Your task to perform on an android device: open app "eBay: The shopping marketplace" Image 0: 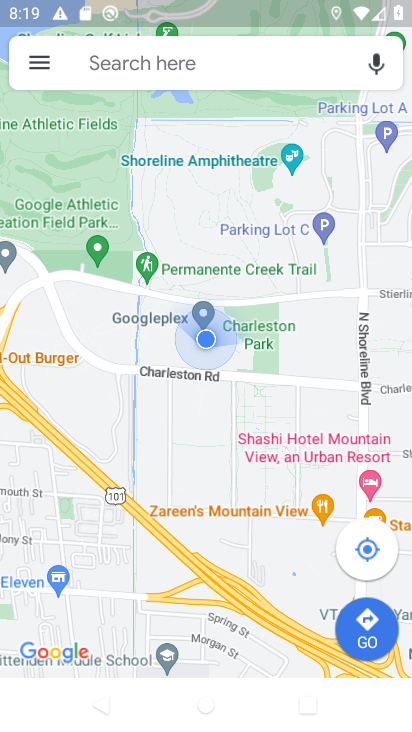
Step 0: press home button
Your task to perform on an android device: open app "eBay: The shopping marketplace" Image 1: 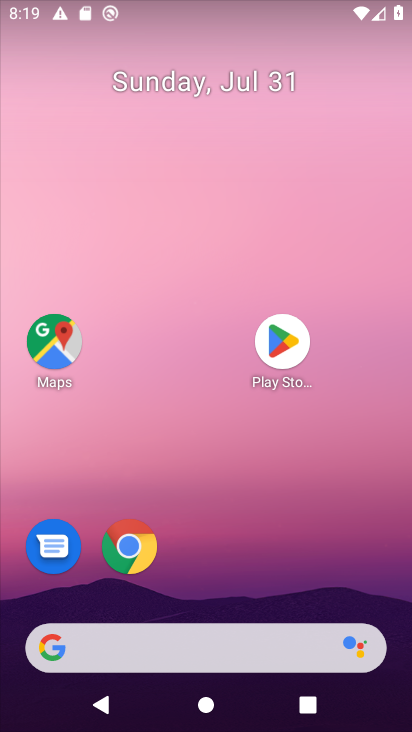
Step 1: click (279, 337)
Your task to perform on an android device: open app "eBay: The shopping marketplace" Image 2: 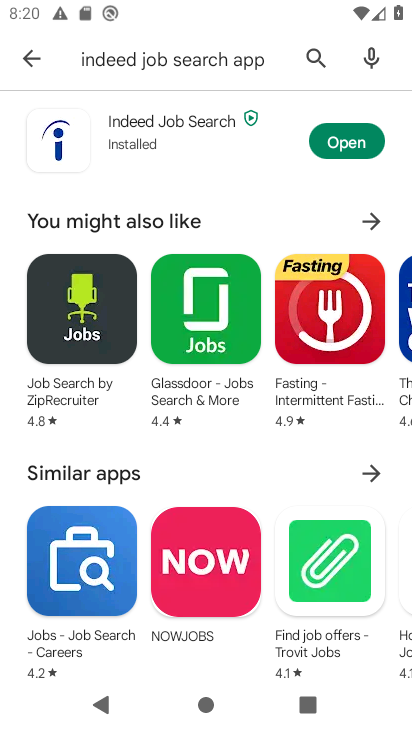
Step 2: click (313, 54)
Your task to perform on an android device: open app "eBay: The shopping marketplace" Image 3: 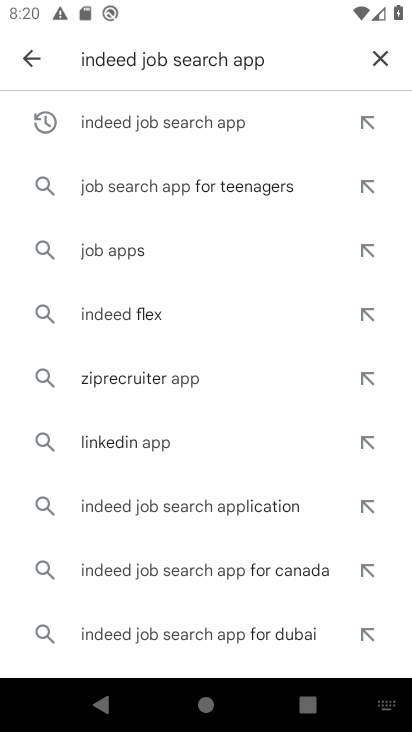
Step 3: click (382, 58)
Your task to perform on an android device: open app "eBay: The shopping marketplace" Image 4: 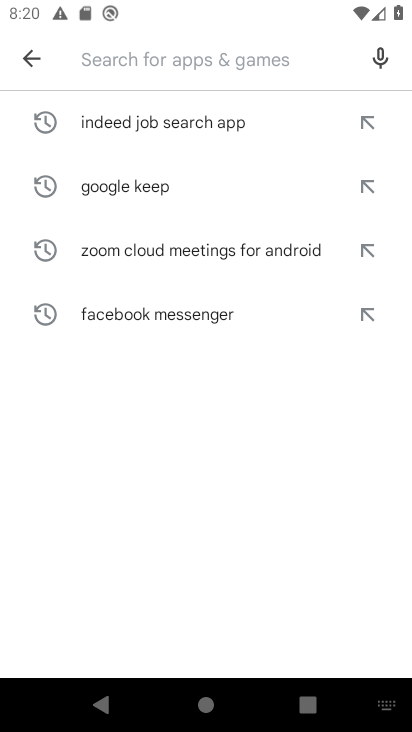
Step 4: type "eBay: The shopping marketplace"
Your task to perform on an android device: open app "eBay: The shopping marketplace" Image 5: 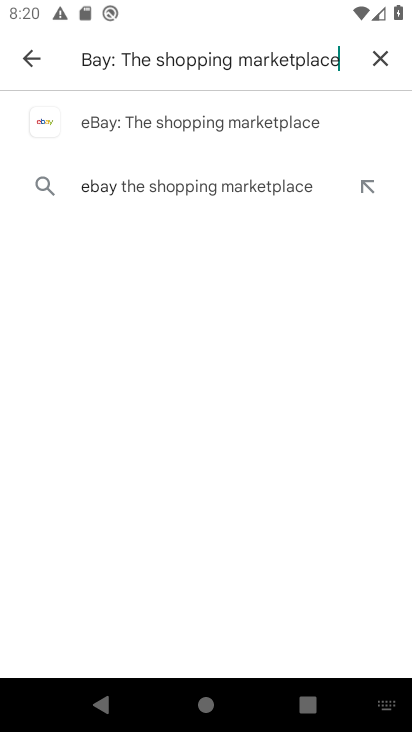
Step 5: click (170, 111)
Your task to perform on an android device: open app "eBay: The shopping marketplace" Image 6: 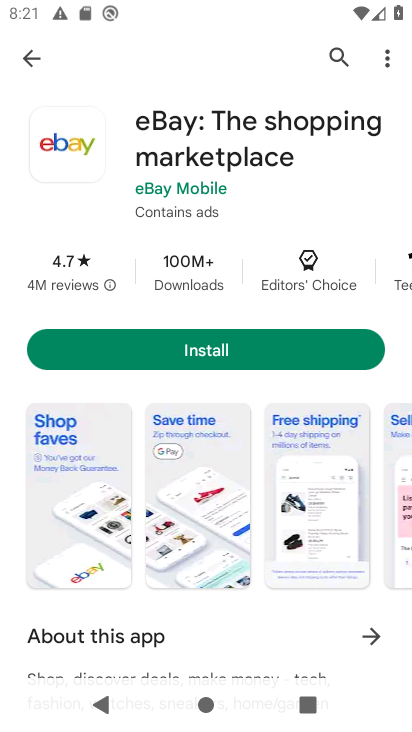
Step 6: task complete